Your task to perform on an android device: find which apps use the phone's location Image 0: 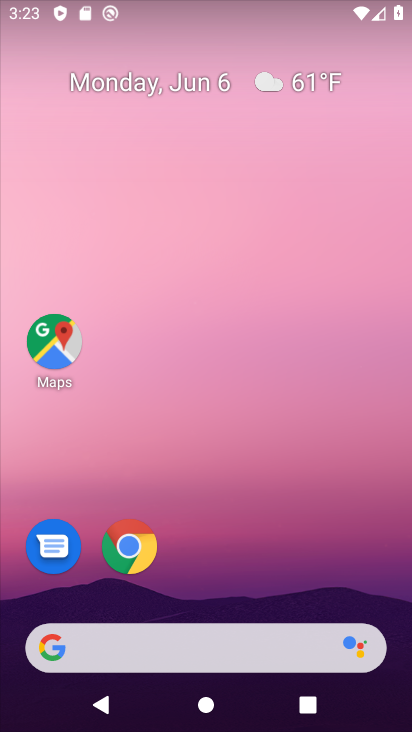
Step 0: press home button
Your task to perform on an android device: find which apps use the phone's location Image 1: 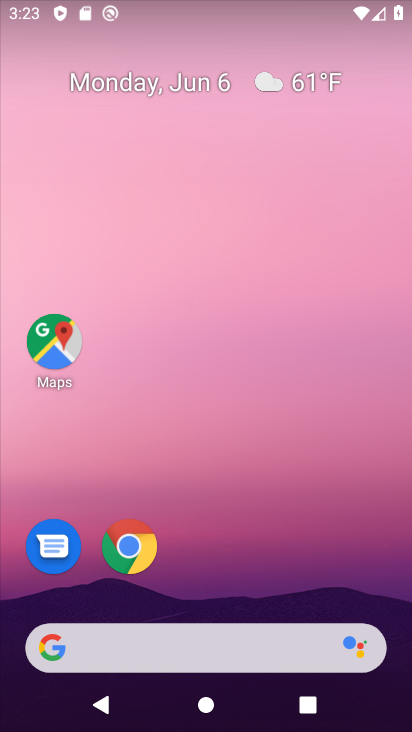
Step 1: drag from (182, 614) to (268, 154)
Your task to perform on an android device: find which apps use the phone's location Image 2: 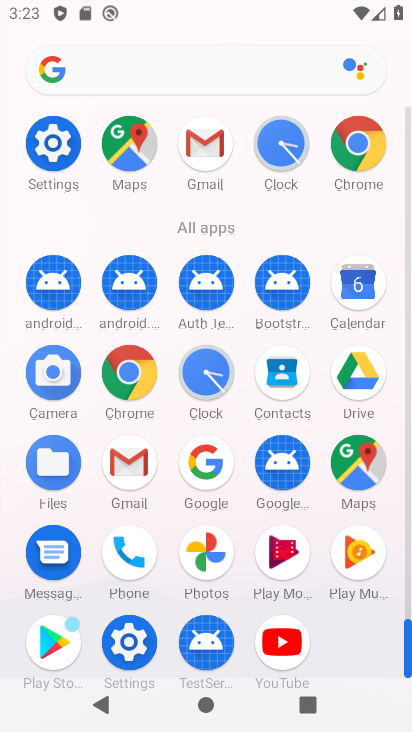
Step 2: click (59, 142)
Your task to perform on an android device: find which apps use the phone's location Image 3: 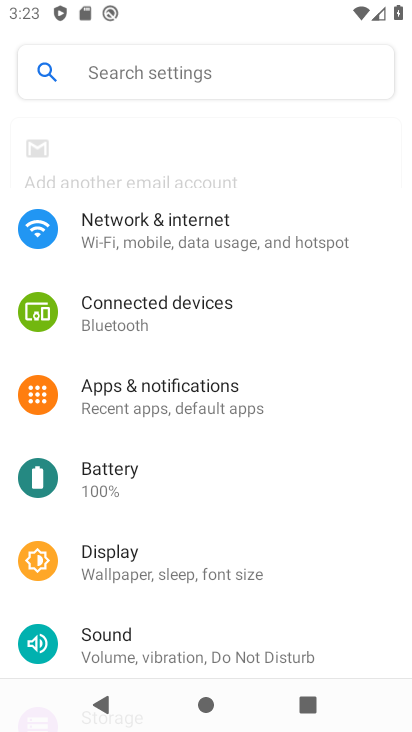
Step 3: drag from (290, 577) to (271, 97)
Your task to perform on an android device: find which apps use the phone's location Image 4: 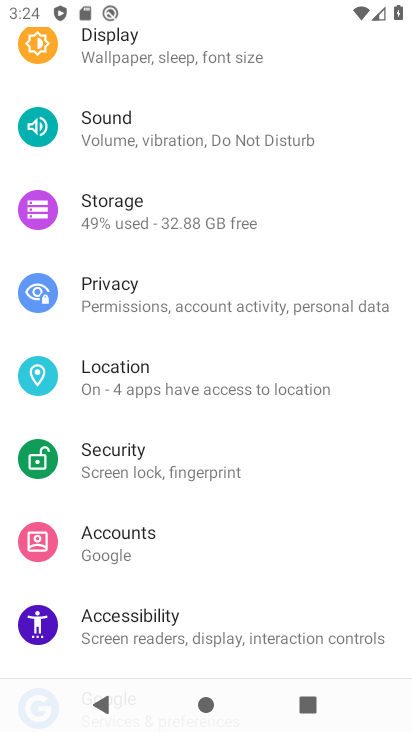
Step 4: click (129, 370)
Your task to perform on an android device: find which apps use the phone's location Image 5: 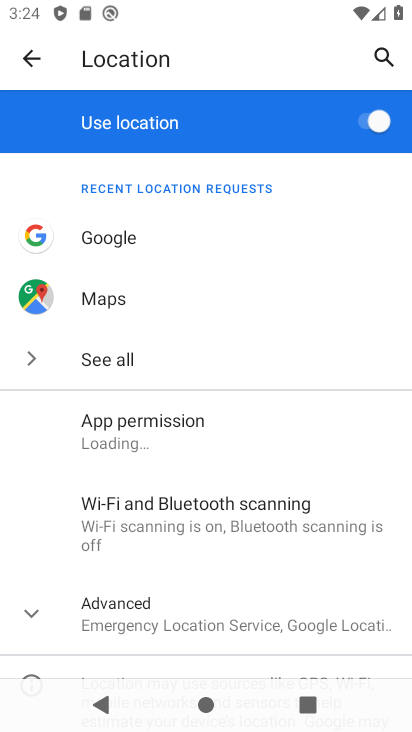
Step 5: click (154, 427)
Your task to perform on an android device: find which apps use the phone's location Image 6: 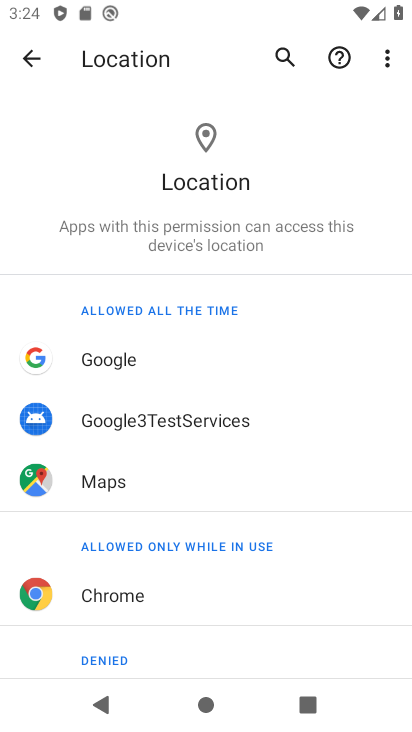
Step 6: task complete